Your task to perform on an android device: Go to Android settings Image 0: 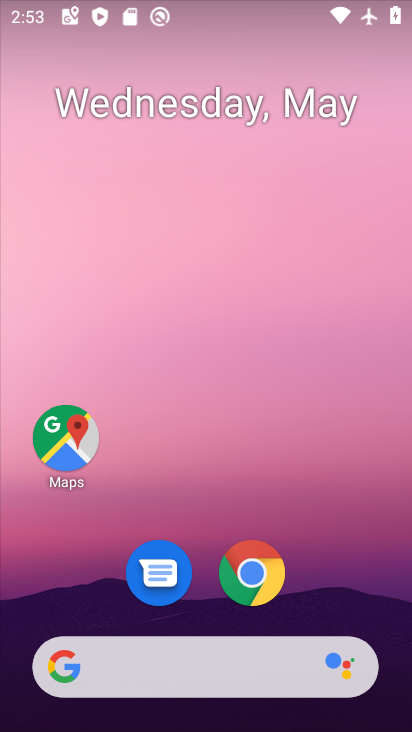
Step 0: drag from (343, 587) to (262, 0)
Your task to perform on an android device: Go to Android settings Image 1: 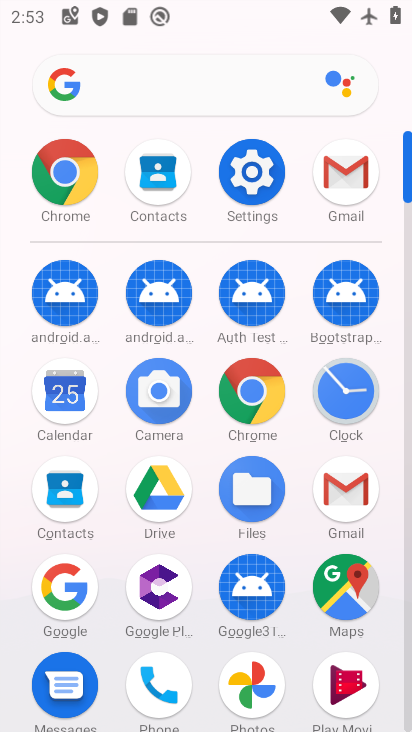
Step 1: click (268, 169)
Your task to perform on an android device: Go to Android settings Image 2: 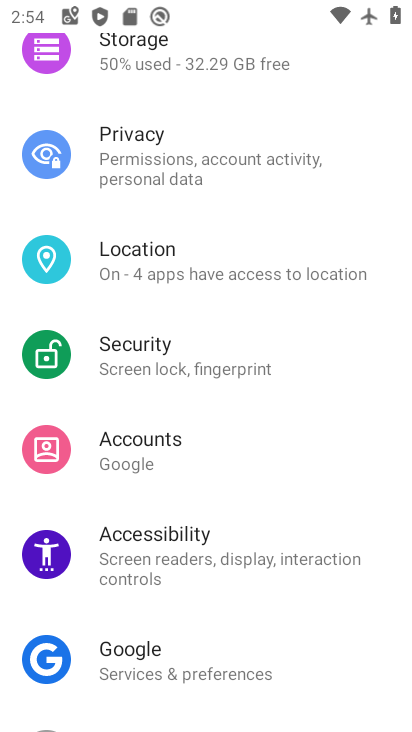
Step 2: drag from (181, 644) to (175, 413)
Your task to perform on an android device: Go to Android settings Image 3: 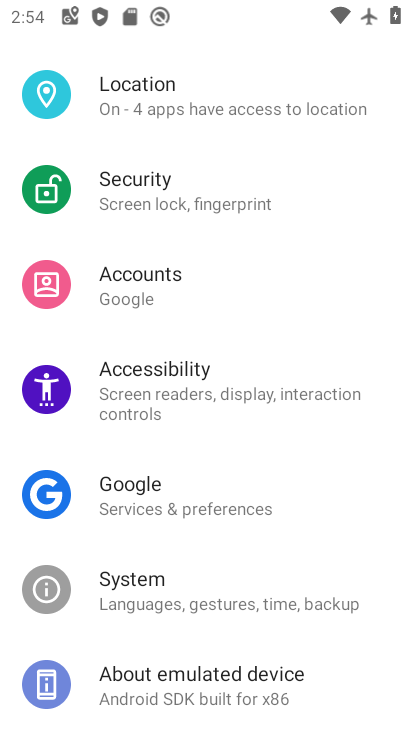
Step 3: click (169, 594)
Your task to perform on an android device: Go to Android settings Image 4: 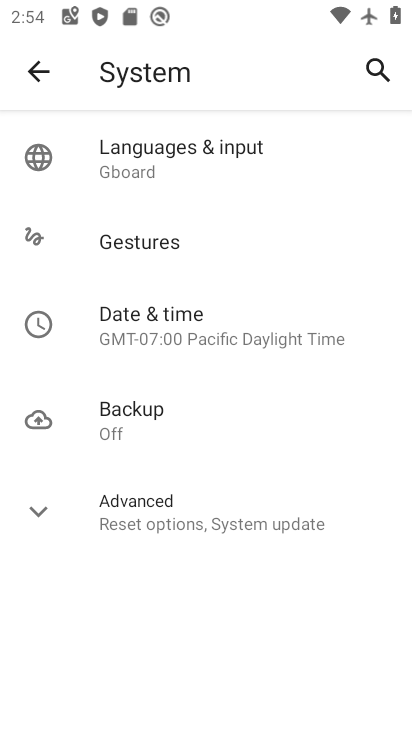
Step 4: task complete